Your task to perform on an android device: turn off sleep mode Image 0: 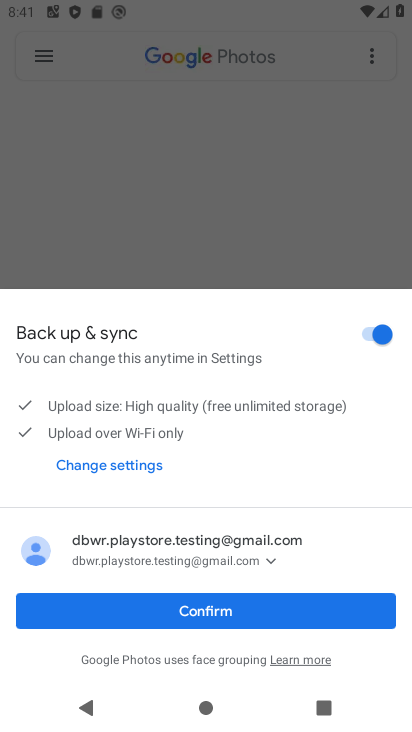
Step 0: press home button
Your task to perform on an android device: turn off sleep mode Image 1: 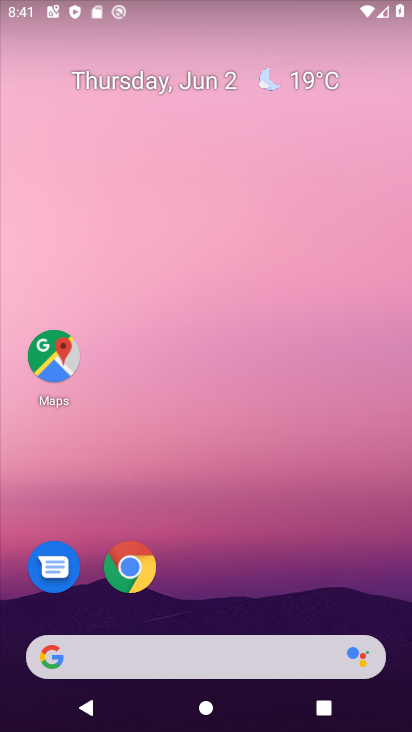
Step 1: drag from (255, 571) to (290, 1)
Your task to perform on an android device: turn off sleep mode Image 2: 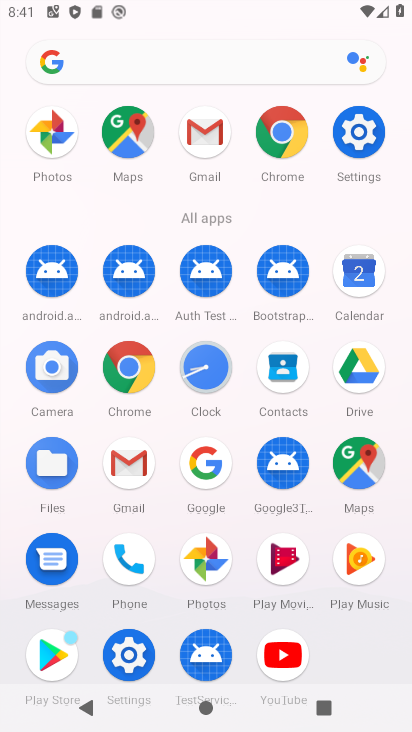
Step 2: click (368, 136)
Your task to perform on an android device: turn off sleep mode Image 3: 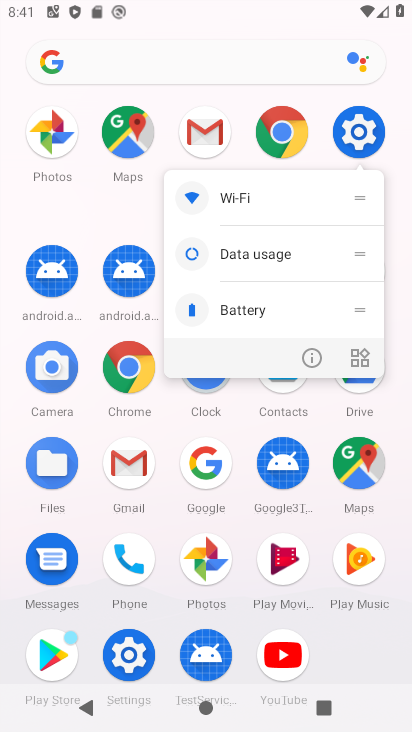
Step 3: click (358, 129)
Your task to perform on an android device: turn off sleep mode Image 4: 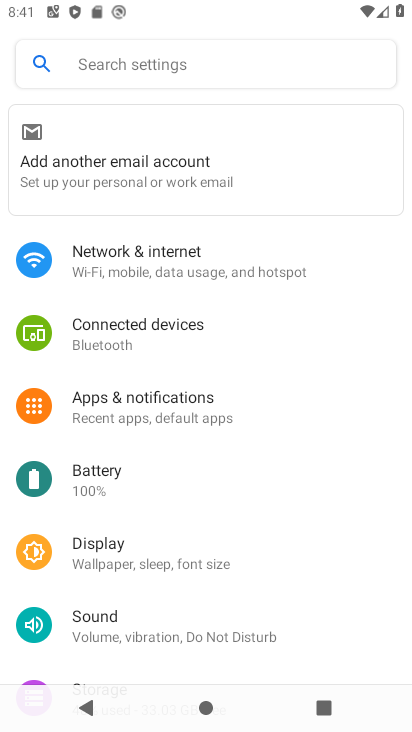
Step 4: click (192, 67)
Your task to perform on an android device: turn off sleep mode Image 5: 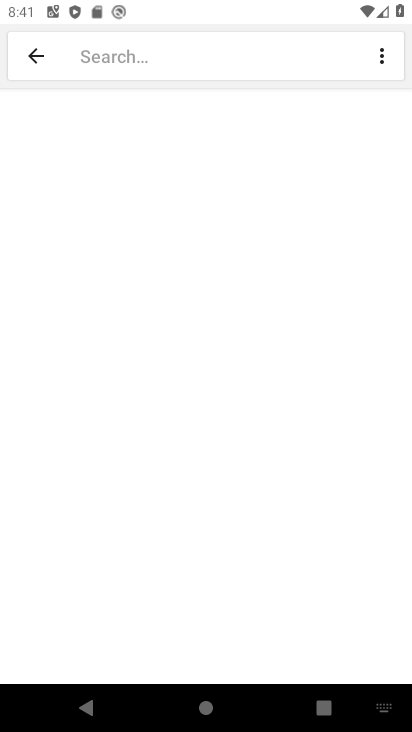
Step 5: type "sleep mode"
Your task to perform on an android device: turn off sleep mode Image 6: 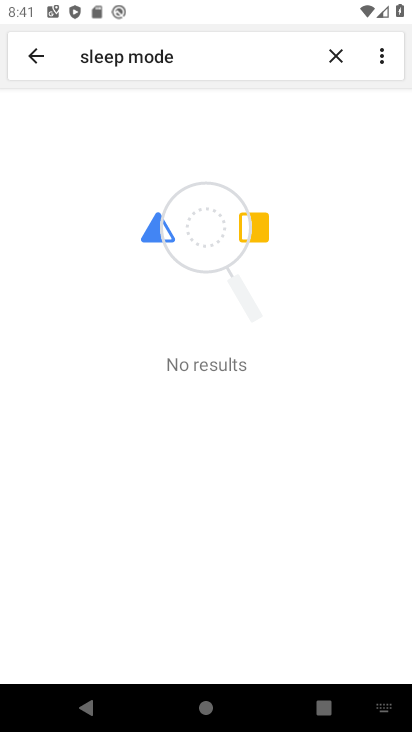
Step 6: task complete